Your task to perform on an android device: Open the calendar app, open the side menu, and click the "Day" option Image 0: 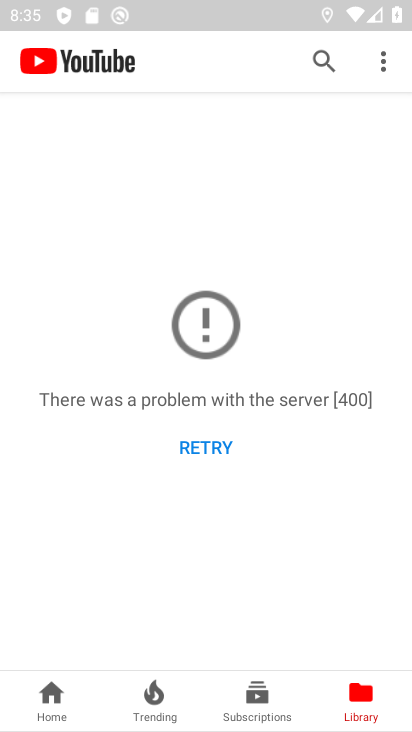
Step 0: press home button
Your task to perform on an android device: Open the calendar app, open the side menu, and click the "Day" option Image 1: 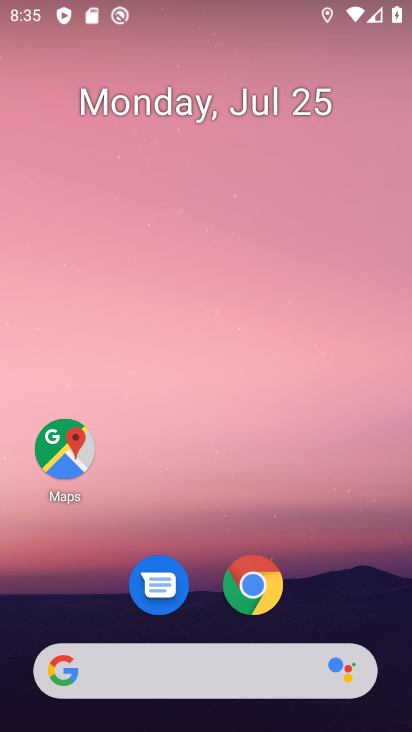
Step 1: drag from (183, 679) to (325, 150)
Your task to perform on an android device: Open the calendar app, open the side menu, and click the "Day" option Image 2: 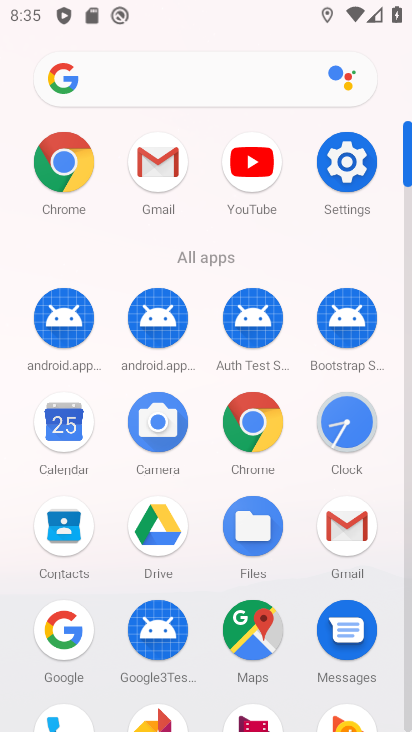
Step 2: click (66, 429)
Your task to perform on an android device: Open the calendar app, open the side menu, and click the "Day" option Image 3: 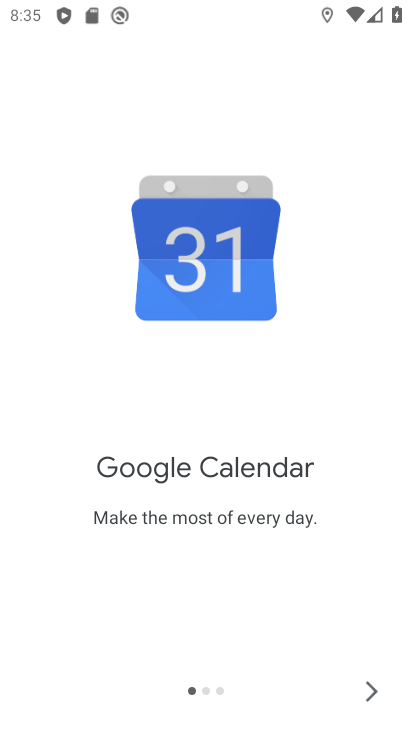
Step 3: click (372, 687)
Your task to perform on an android device: Open the calendar app, open the side menu, and click the "Day" option Image 4: 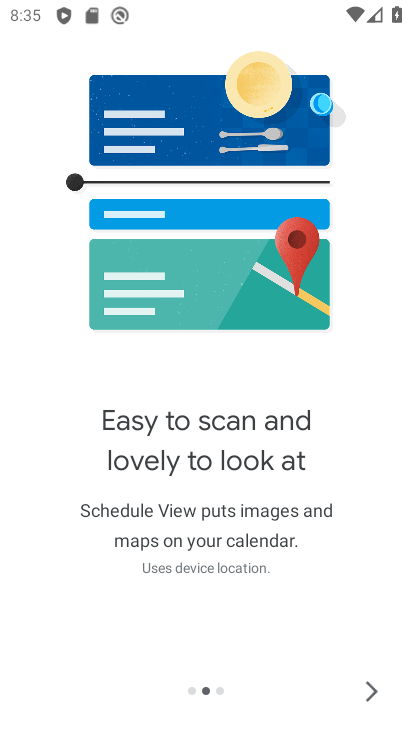
Step 4: click (372, 685)
Your task to perform on an android device: Open the calendar app, open the side menu, and click the "Day" option Image 5: 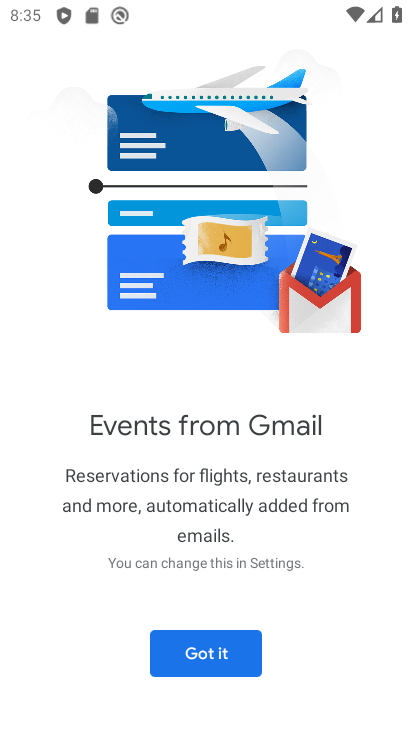
Step 5: click (205, 656)
Your task to perform on an android device: Open the calendar app, open the side menu, and click the "Day" option Image 6: 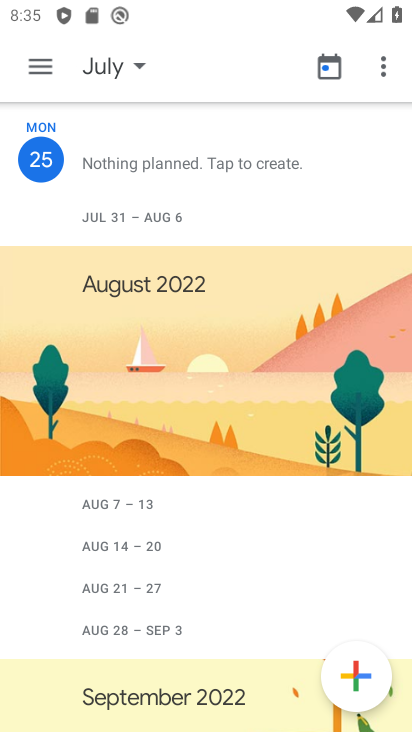
Step 6: click (42, 69)
Your task to perform on an android device: Open the calendar app, open the side menu, and click the "Day" option Image 7: 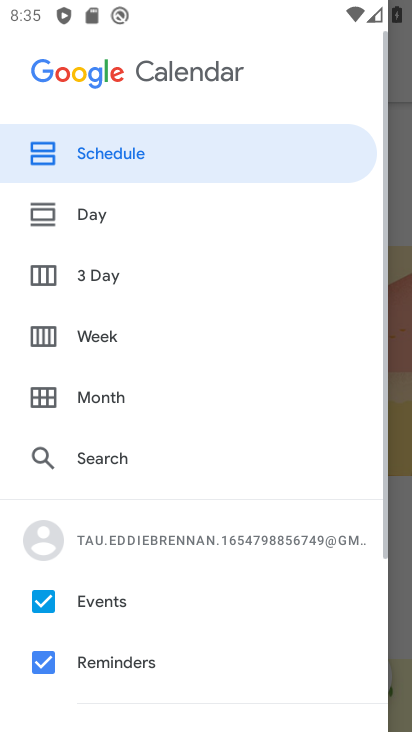
Step 7: click (102, 216)
Your task to perform on an android device: Open the calendar app, open the side menu, and click the "Day" option Image 8: 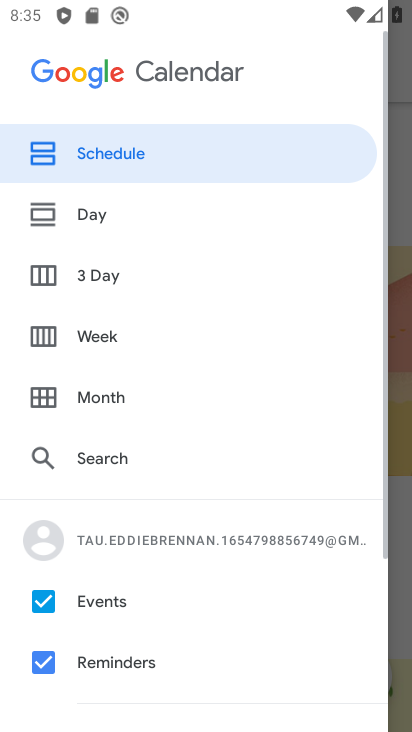
Step 8: click (90, 212)
Your task to perform on an android device: Open the calendar app, open the side menu, and click the "Day" option Image 9: 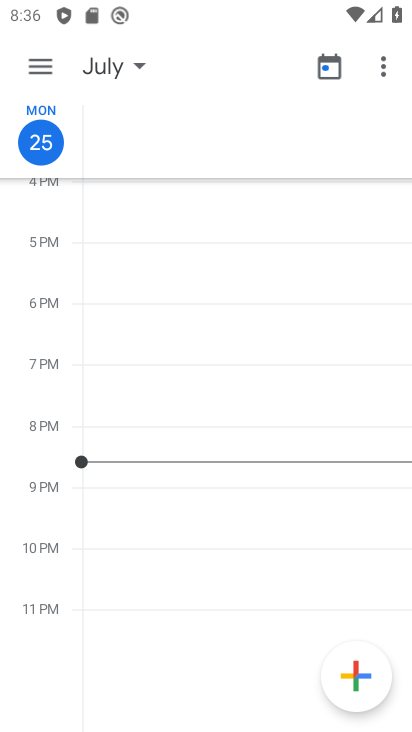
Step 9: task complete